Your task to perform on an android device: turn on notifications settings in the gmail app Image 0: 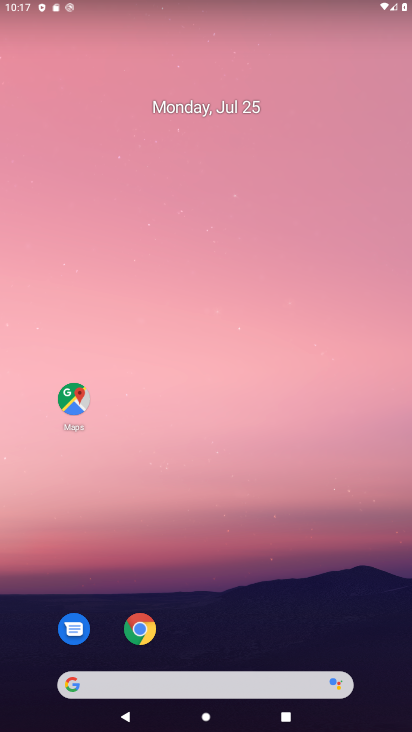
Step 0: drag from (216, 663) to (207, 77)
Your task to perform on an android device: turn on notifications settings in the gmail app Image 1: 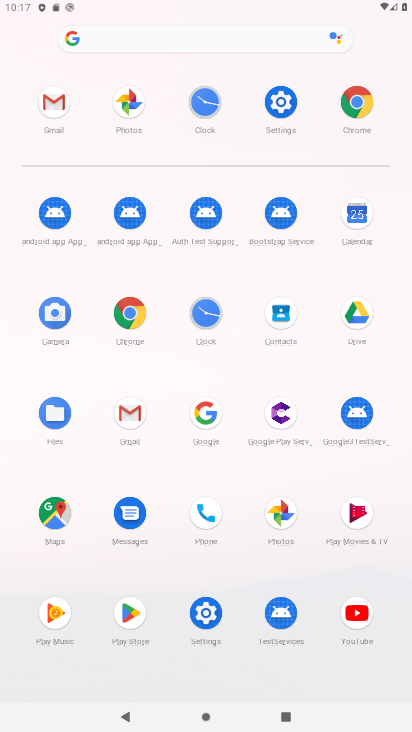
Step 1: click (57, 111)
Your task to perform on an android device: turn on notifications settings in the gmail app Image 2: 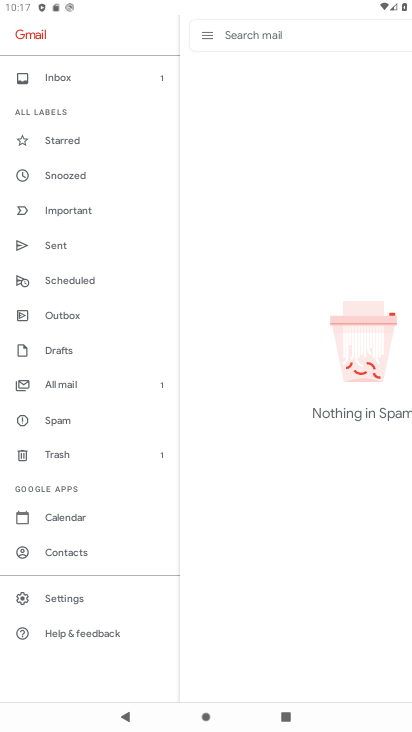
Step 2: click (76, 609)
Your task to perform on an android device: turn on notifications settings in the gmail app Image 3: 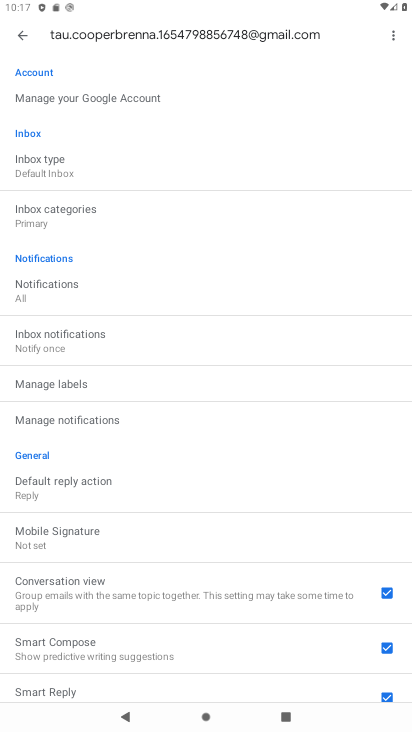
Step 3: click (27, 42)
Your task to perform on an android device: turn on notifications settings in the gmail app Image 4: 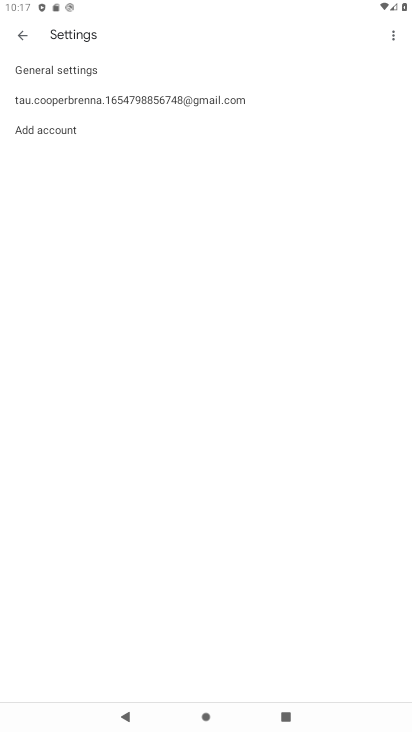
Step 4: click (66, 68)
Your task to perform on an android device: turn on notifications settings in the gmail app Image 5: 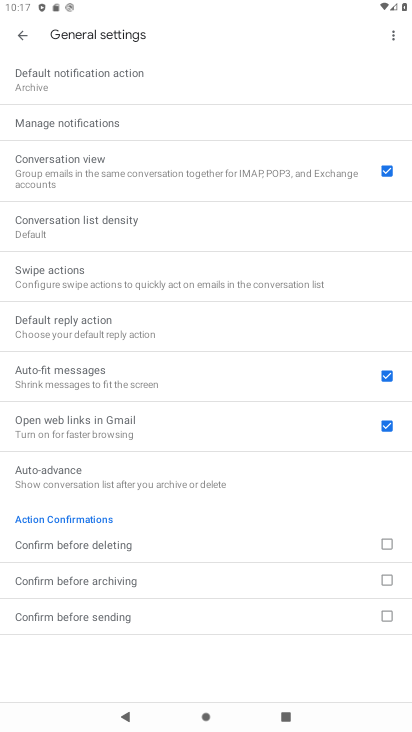
Step 5: click (64, 121)
Your task to perform on an android device: turn on notifications settings in the gmail app Image 6: 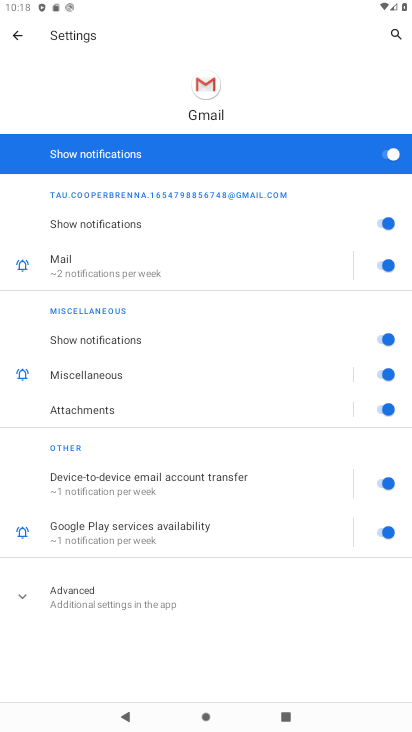
Step 6: task complete